Your task to perform on an android device: check battery use Image 0: 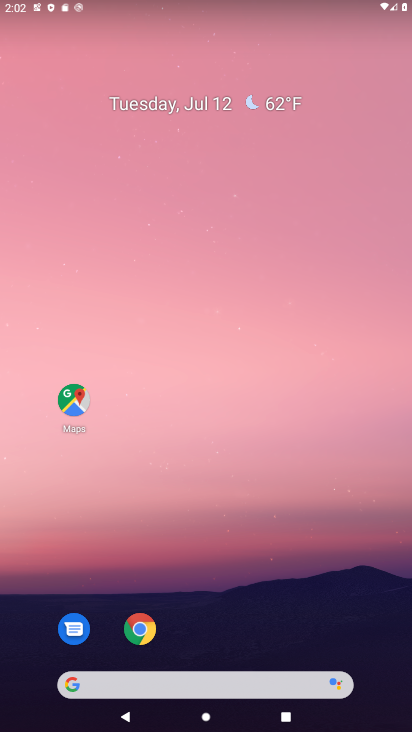
Step 0: press home button
Your task to perform on an android device: check battery use Image 1: 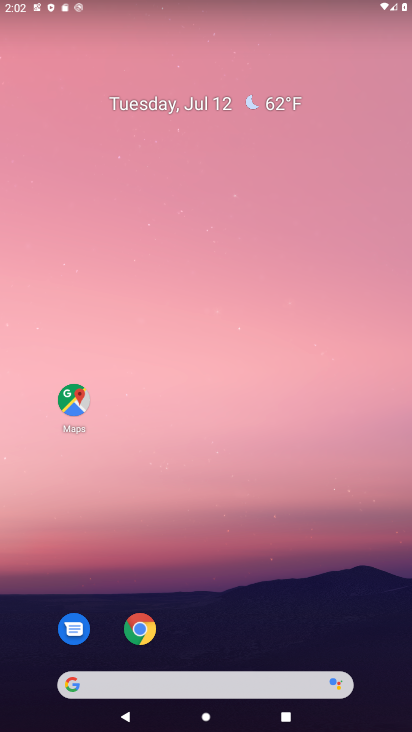
Step 1: drag from (215, 660) to (221, 4)
Your task to perform on an android device: check battery use Image 2: 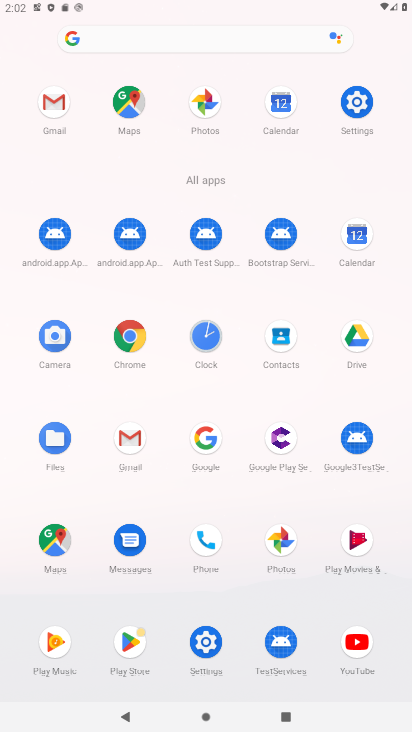
Step 2: click (357, 97)
Your task to perform on an android device: check battery use Image 3: 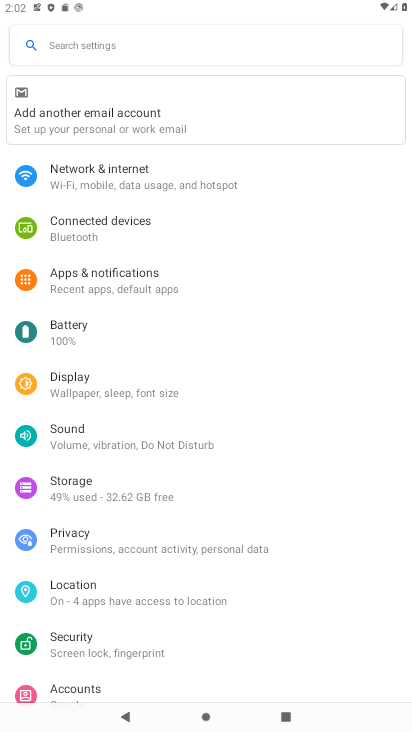
Step 3: click (77, 339)
Your task to perform on an android device: check battery use Image 4: 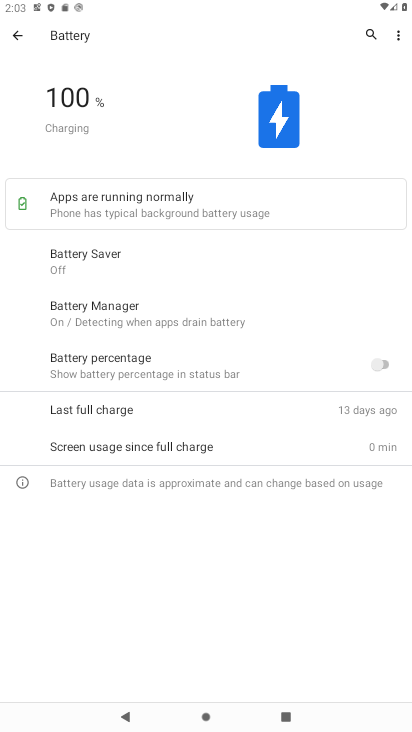
Step 4: click (398, 32)
Your task to perform on an android device: check battery use Image 5: 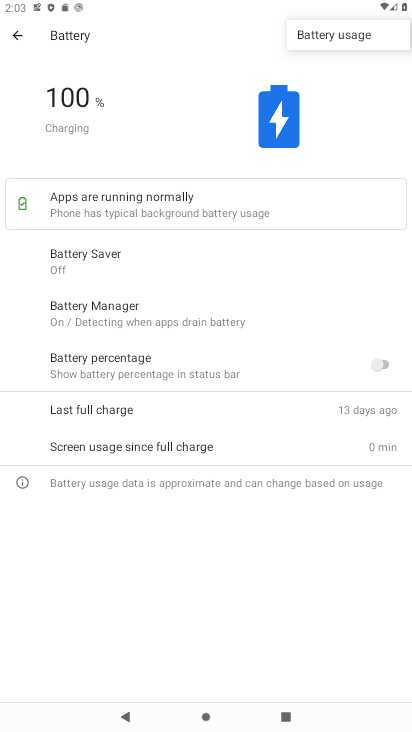
Step 5: click (315, 40)
Your task to perform on an android device: check battery use Image 6: 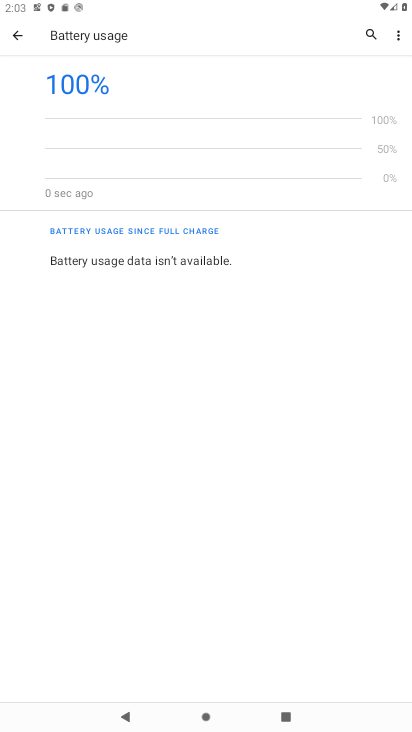
Step 6: task complete